Your task to perform on an android device: Open Google Chrome and open the bookmarks view Image 0: 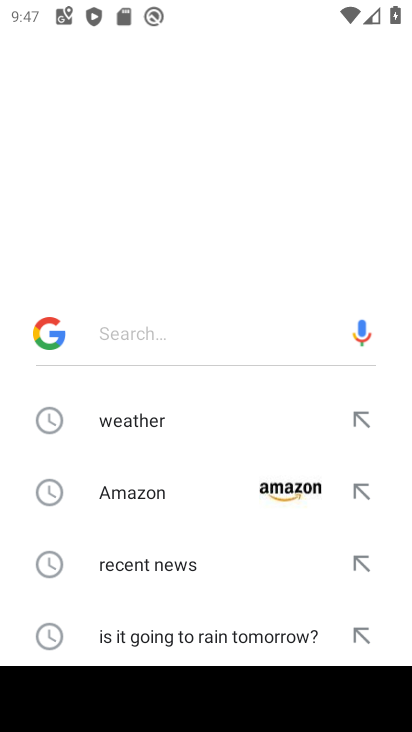
Step 0: press home button
Your task to perform on an android device: Open Google Chrome and open the bookmarks view Image 1: 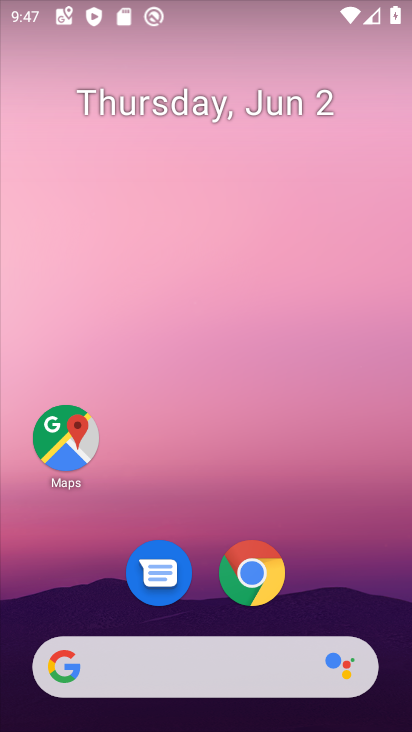
Step 1: click (258, 571)
Your task to perform on an android device: Open Google Chrome and open the bookmarks view Image 2: 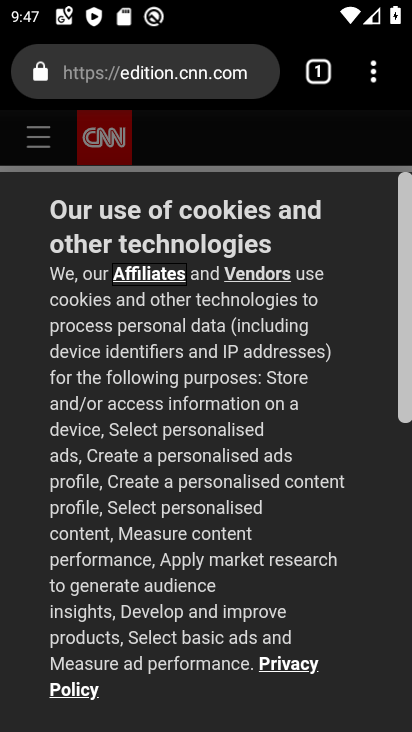
Step 2: click (375, 73)
Your task to perform on an android device: Open Google Chrome and open the bookmarks view Image 3: 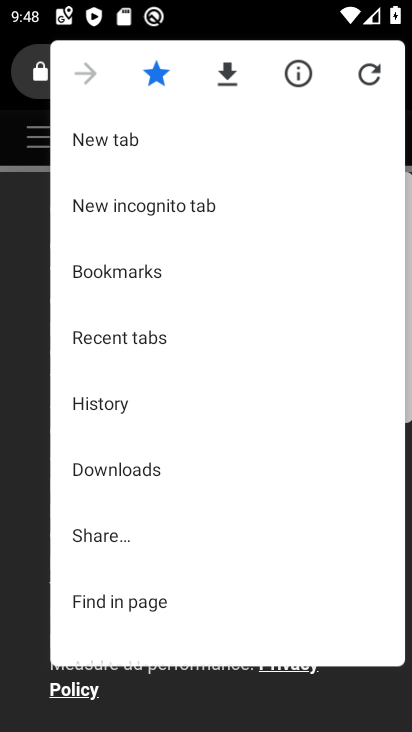
Step 3: click (94, 279)
Your task to perform on an android device: Open Google Chrome and open the bookmarks view Image 4: 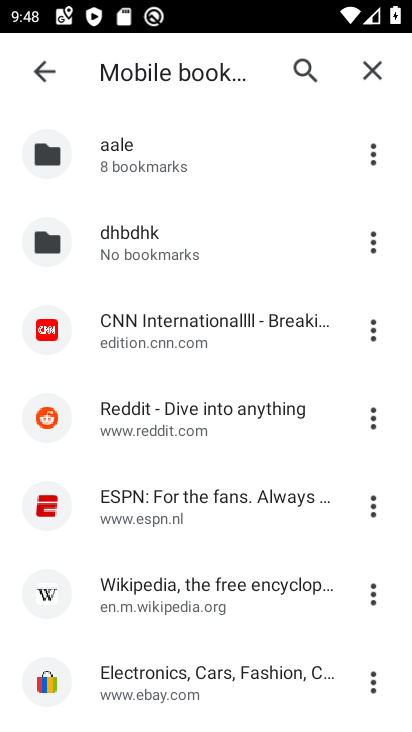
Step 4: task complete